Your task to perform on an android device: toggle wifi Image 0: 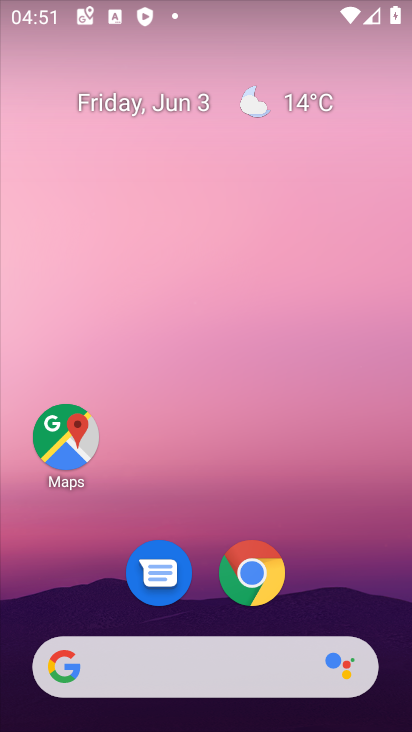
Step 0: click (308, 191)
Your task to perform on an android device: toggle wifi Image 1: 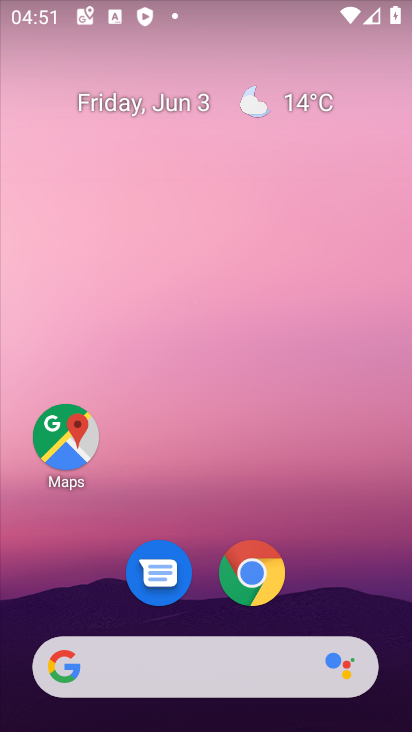
Step 1: drag from (397, 7) to (265, 321)
Your task to perform on an android device: toggle wifi Image 2: 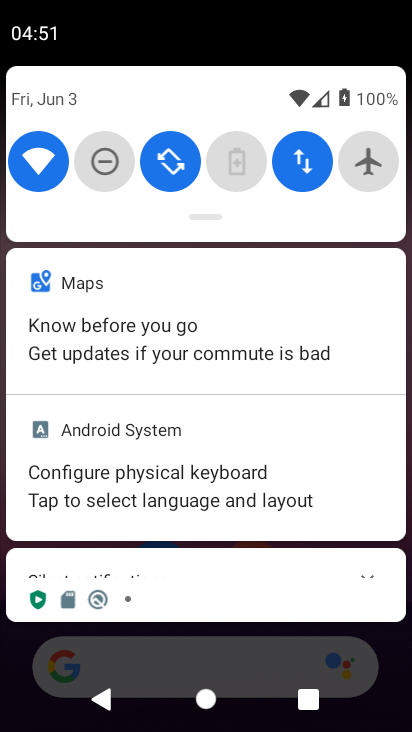
Step 2: click (36, 160)
Your task to perform on an android device: toggle wifi Image 3: 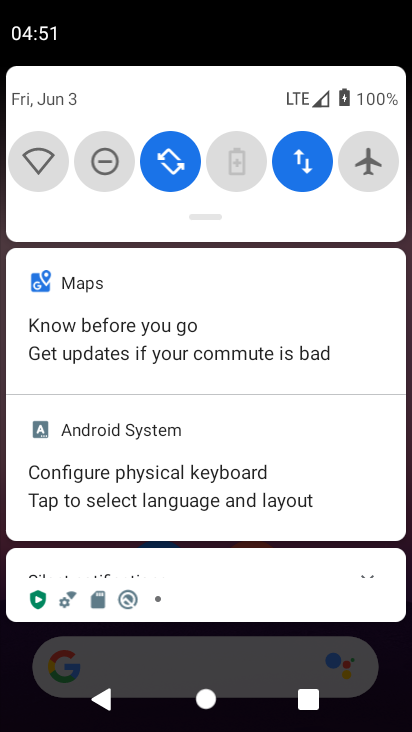
Step 3: click (194, 677)
Your task to perform on an android device: toggle wifi Image 4: 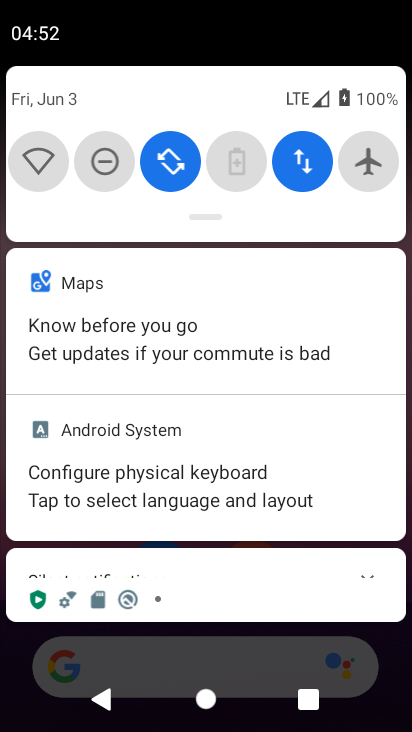
Step 4: task complete